Your task to perform on an android device: Search for Italian restaurants on Maps Image 0: 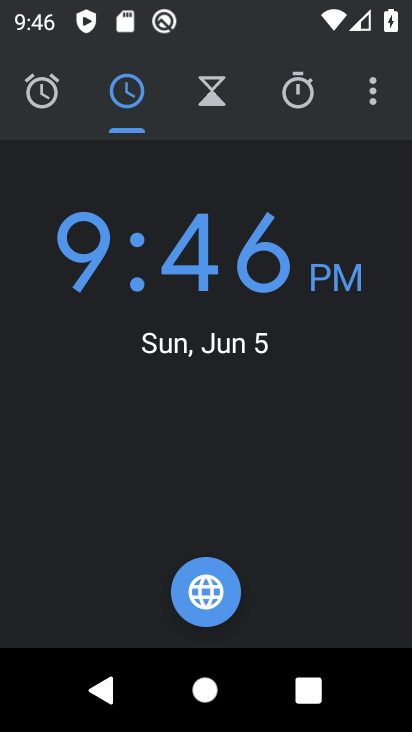
Step 0: press home button
Your task to perform on an android device: Search for Italian restaurants on Maps Image 1: 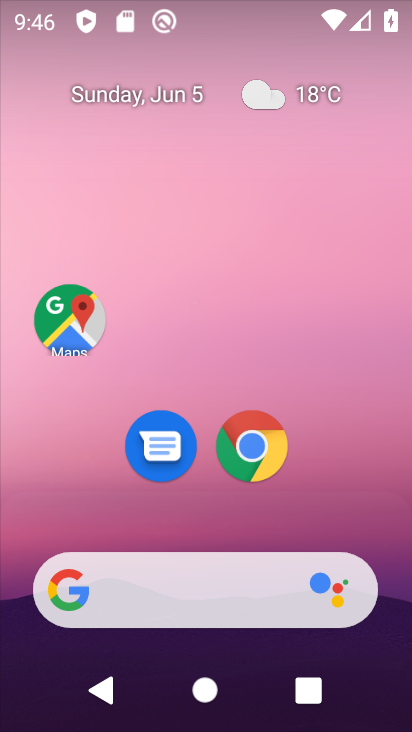
Step 1: click (57, 323)
Your task to perform on an android device: Search for Italian restaurants on Maps Image 2: 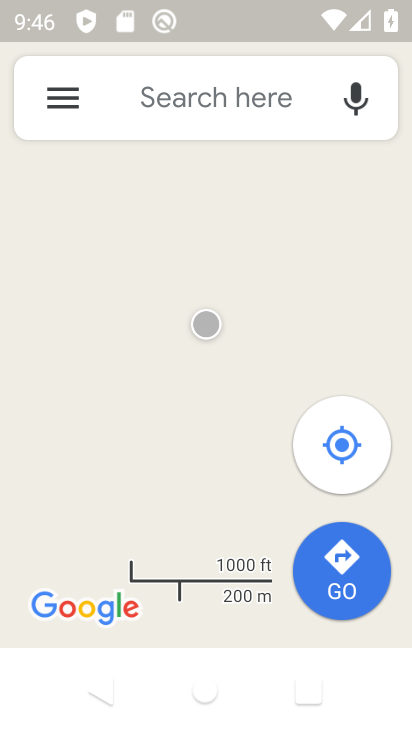
Step 2: click (163, 95)
Your task to perform on an android device: Search for Italian restaurants on Maps Image 3: 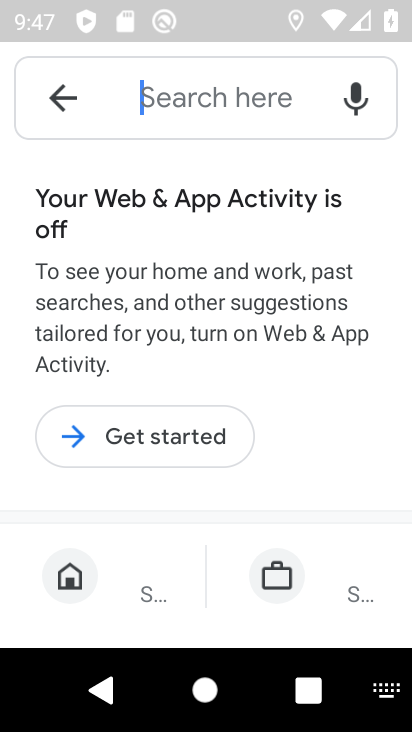
Step 3: click (60, 106)
Your task to perform on an android device: Search for Italian restaurants on Maps Image 4: 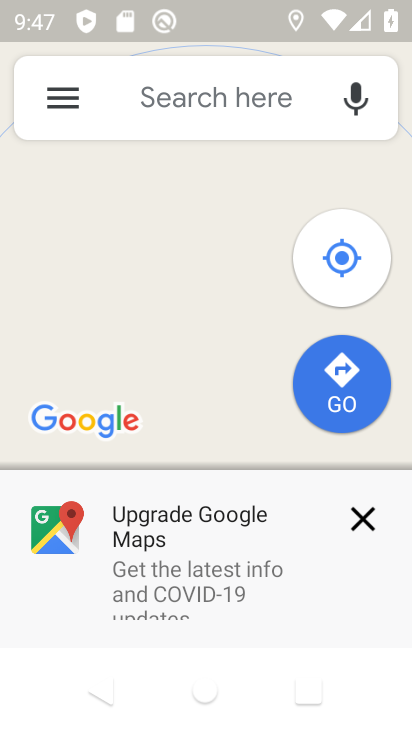
Step 4: click (234, 109)
Your task to perform on an android device: Search for Italian restaurants on Maps Image 5: 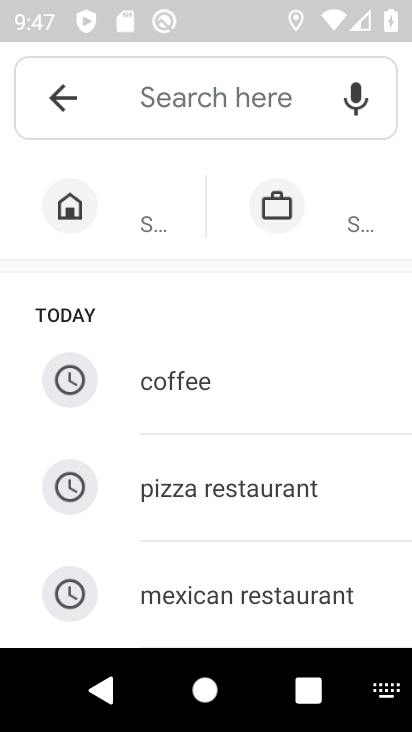
Step 5: type "italian restaurants"
Your task to perform on an android device: Search for Italian restaurants on Maps Image 6: 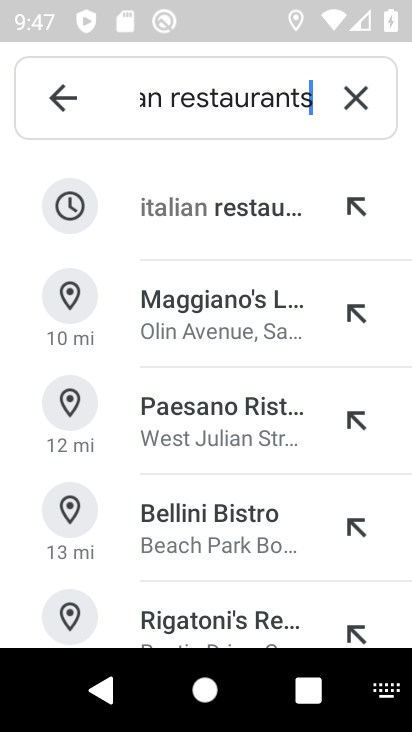
Step 6: click (186, 239)
Your task to perform on an android device: Search for Italian restaurants on Maps Image 7: 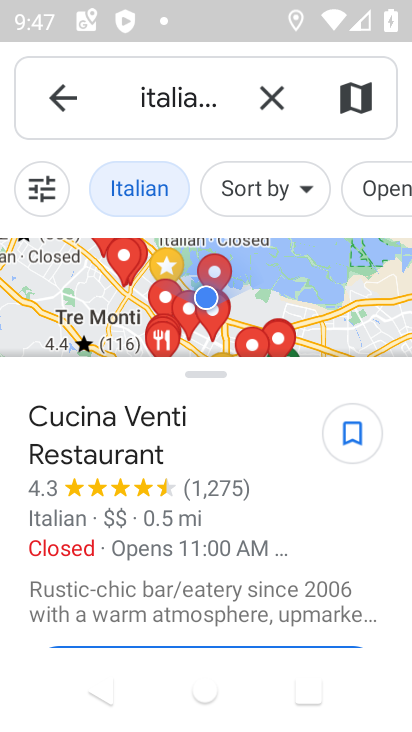
Step 7: task complete